Your task to perform on an android device: Search for Mexican restaurants on Maps Image 0: 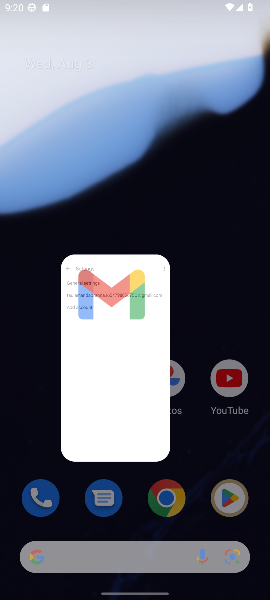
Step 0: press home button
Your task to perform on an android device: Search for Mexican restaurants on Maps Image 1: 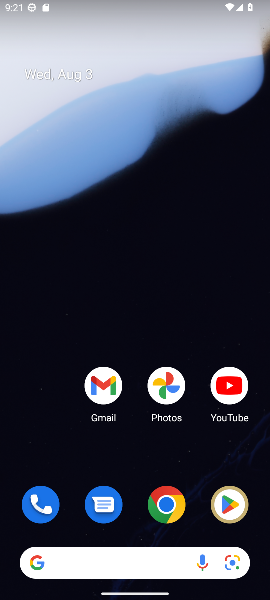
Step 1: drag from (132, 482) to (155, 14)
Your task to perform on an android device: Search for Mexican restaurants on Maps Image 2: 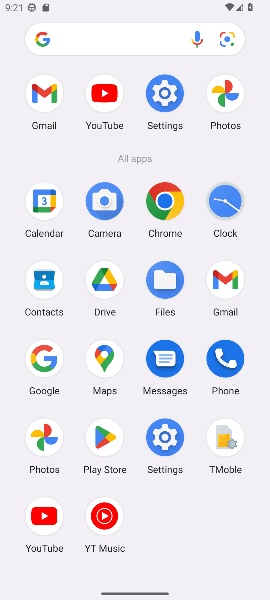
Step 2: click (99, 349)
Your task to perform on an android device: Search for Mexican restaurants on Maps Image 3: 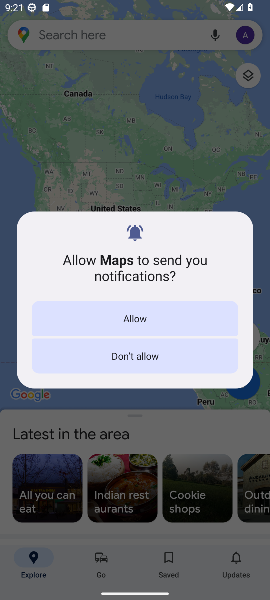
Step 3: click (139, 321)
Your task to perform on an android device: Search for Mexican restaurants on Maps Image 4: 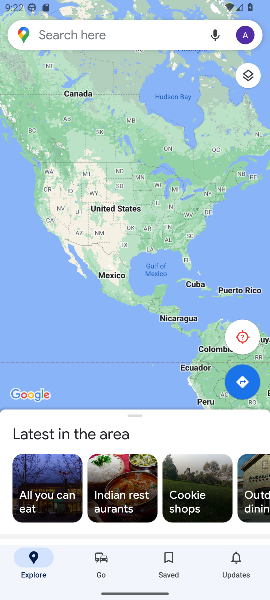
Step 4: click (77, 28)
Your task to perform on an android device: Search for Mexican restaurants on Maps Image 5: 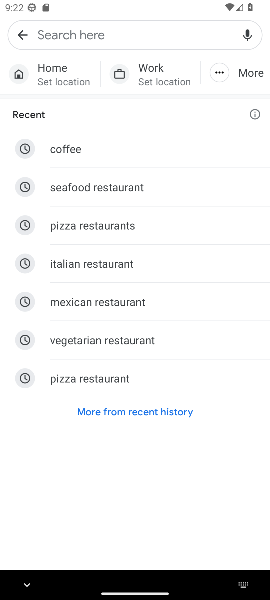
Step 5: click (81, 300)
Your task to perform on an android device: Search for Mexican restaurants on Maps Image 6: 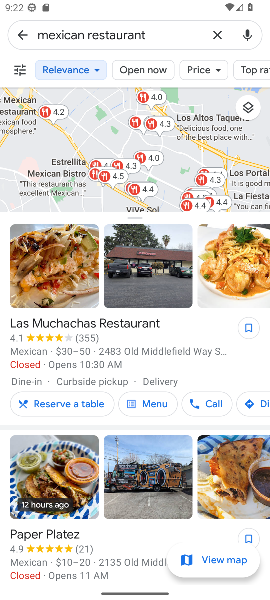
Step 6: task complete